Your task to perform on an android device: empty trash in google photos Image 0: 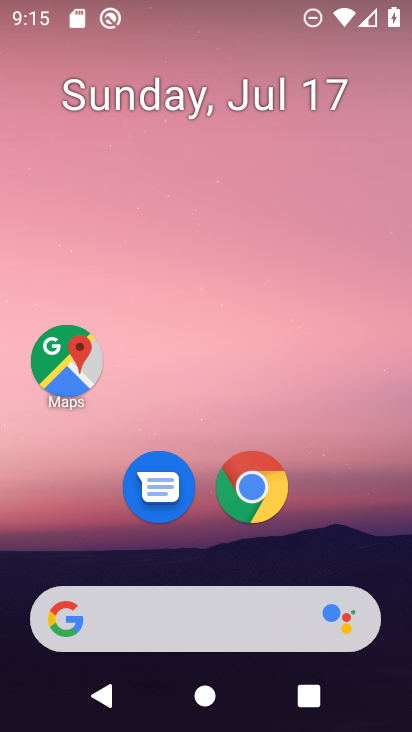
Step 0: press home button
Your task to perform on an android device: empty trash in google photos Image 1: 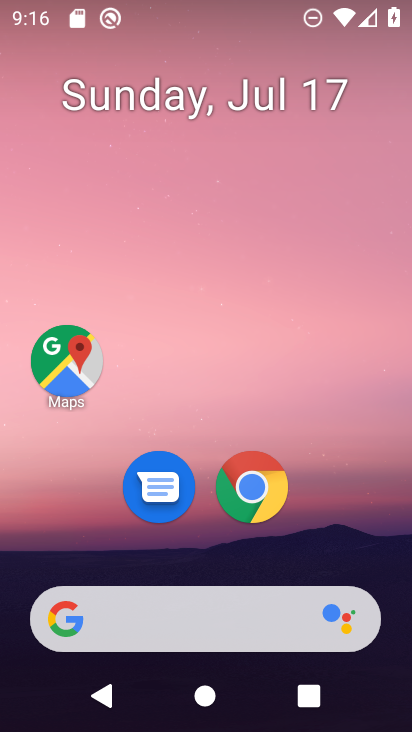
Step 1: press home button
Your task to perform on an android device: empty trash in google photos Image 2: 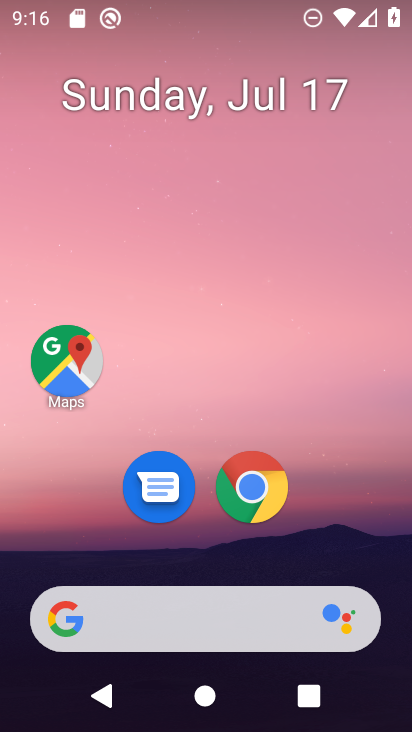
Step 2: drag from (338, 520) to (335, 273)
Your task to perform on an android device: empty trash in google photos Image 3: 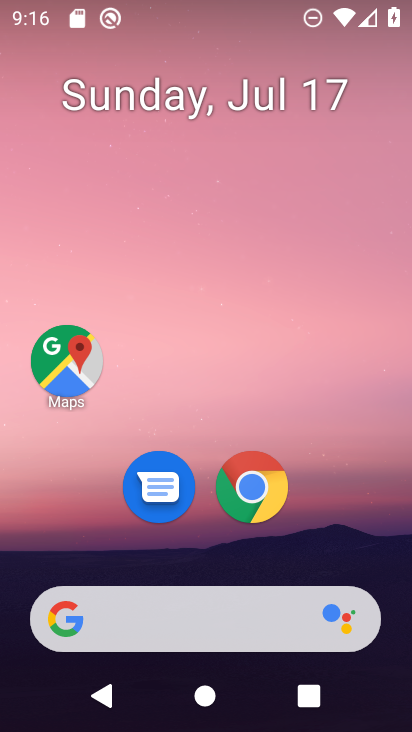
Step 3: click (12, 497)
Your task to perform on an android device: empty trash in google photos Image 4: 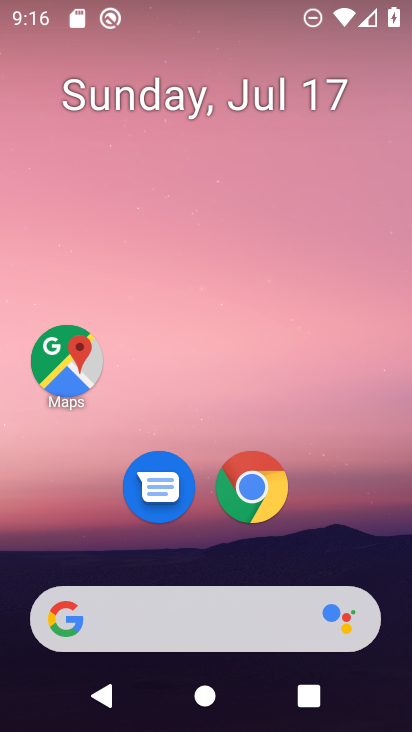
Step 4: drag from (355, 529) to (358, 100)
Your task to perform on an android device: empty trash in google photos Image 5: 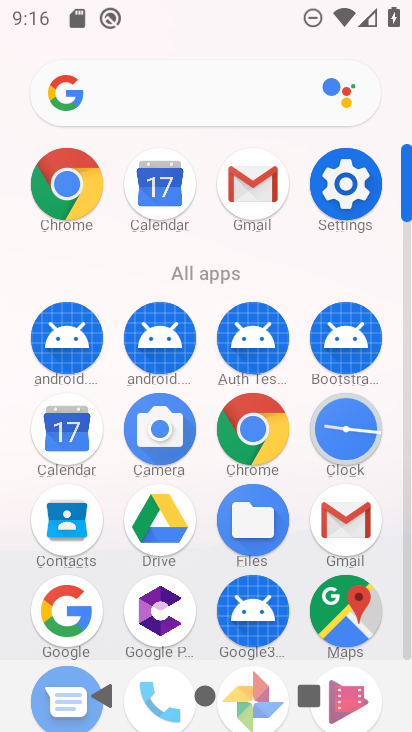
Step 5: drag from (219, 563) to (226, 237)
Your task to perform on an android device: empty trash in google photos Image 6: 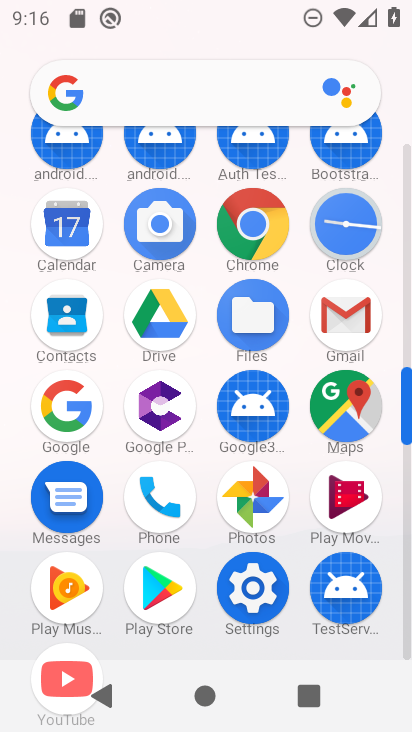
Step 6: click (264, 512)
Your task to perform on an android device: empty trash in google photos Image 7: 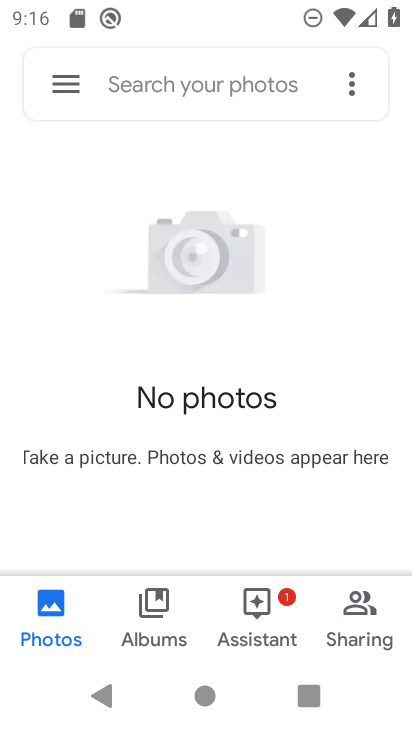
Step 7: click (75, 82)
Your task to perform on an android device: empty trash in google photos Image 8: 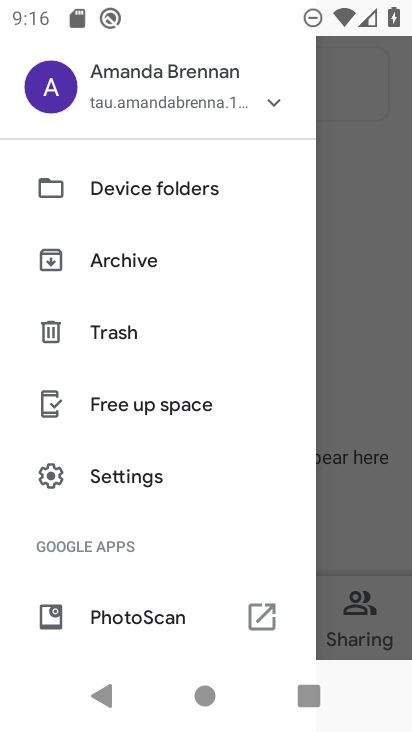
Step 8: click (133, 345)
Your task to perform on an android device: empty trash in google photos Image 9: 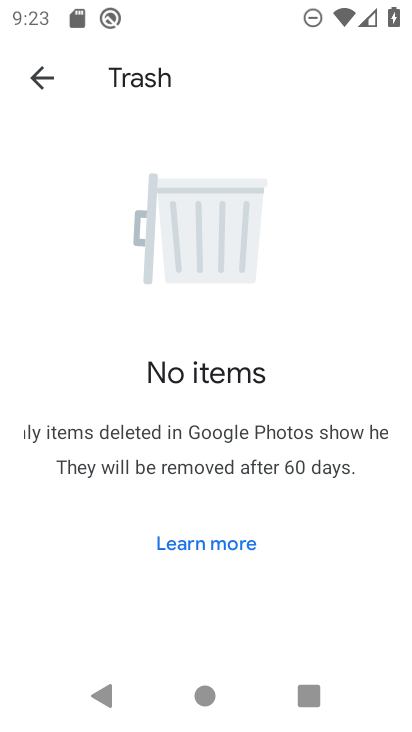
Step 9: task complete